Your task to perform on an android device: Go to sound settings Image 0: 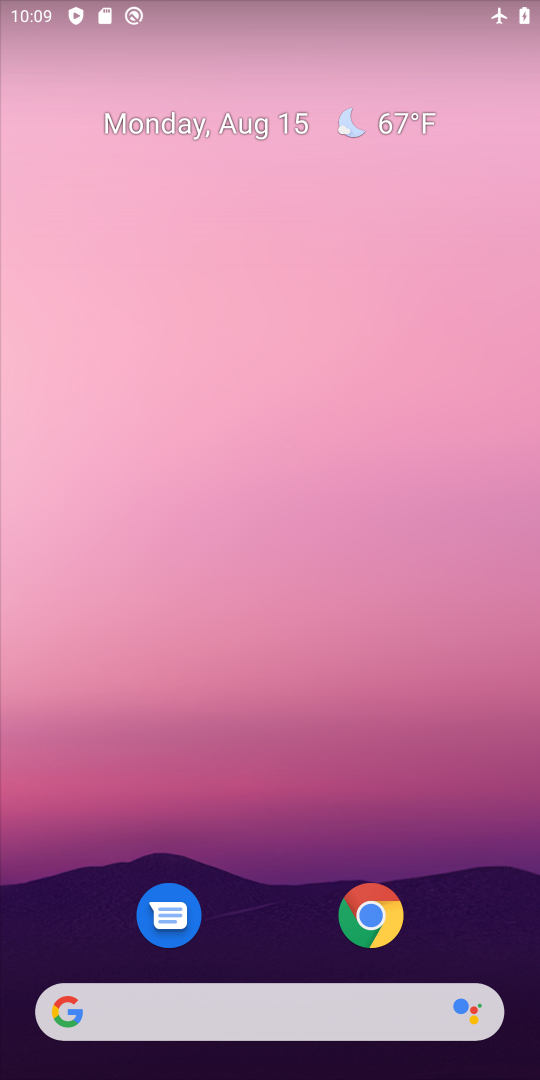
Step 0: drag from (489, 906) to (427, 87)
Your task to perform on an android device: Go to sound settings Image 1: 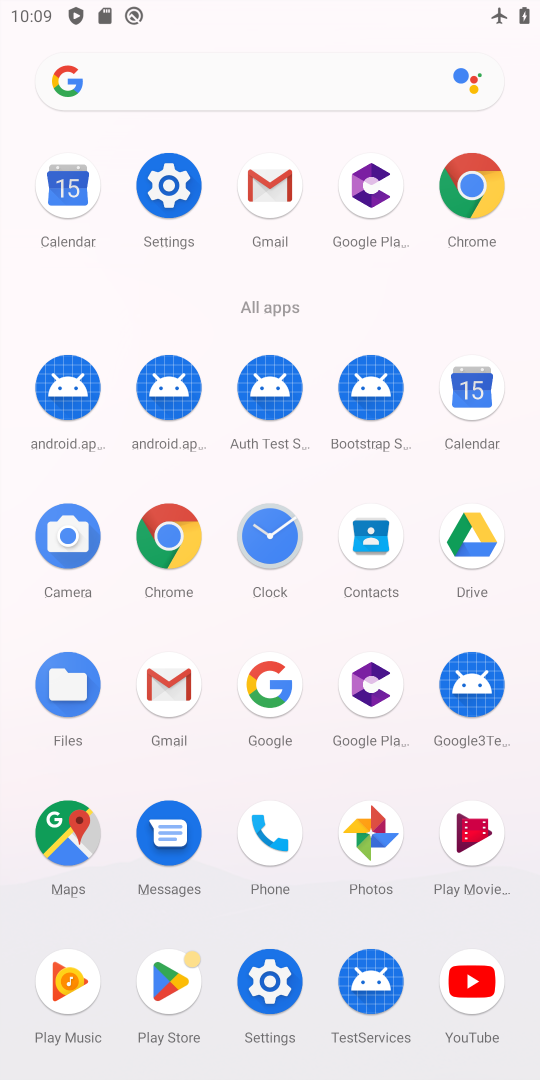
Step 1: click (268, 985)
Your task to perform on an android device: Go to sound settings Image 2: 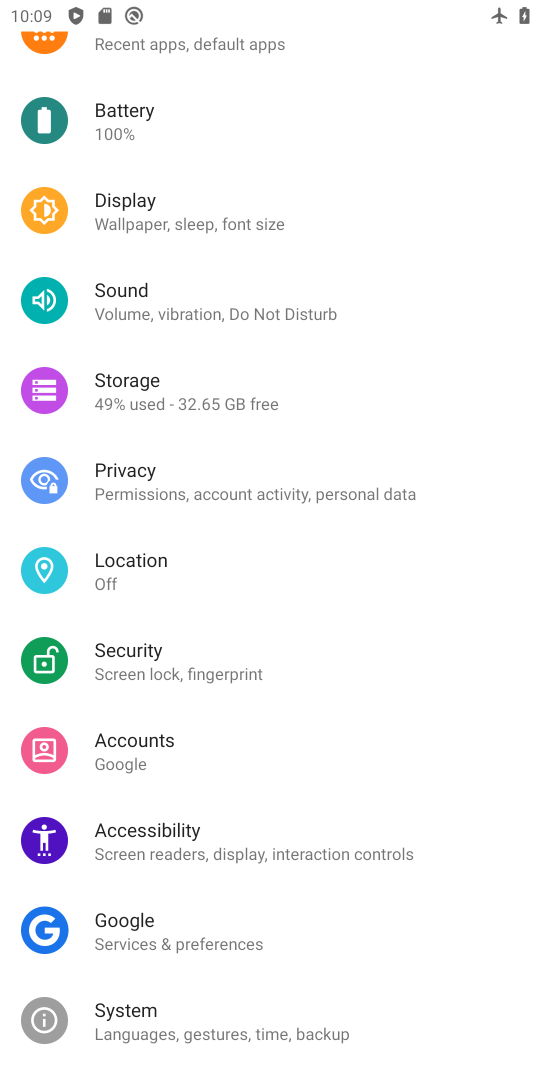
Step 2: click (179, 312)
Your task to perform on an android device: Go to sound settings Image 3: 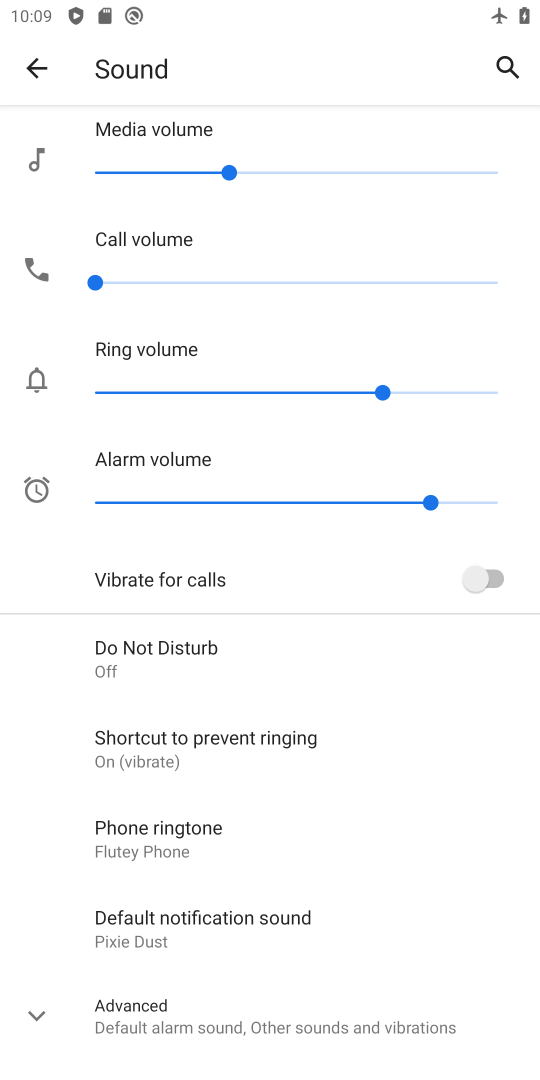
Step 3: task complete